Your task to perform on an android device: check battery use Image 0: 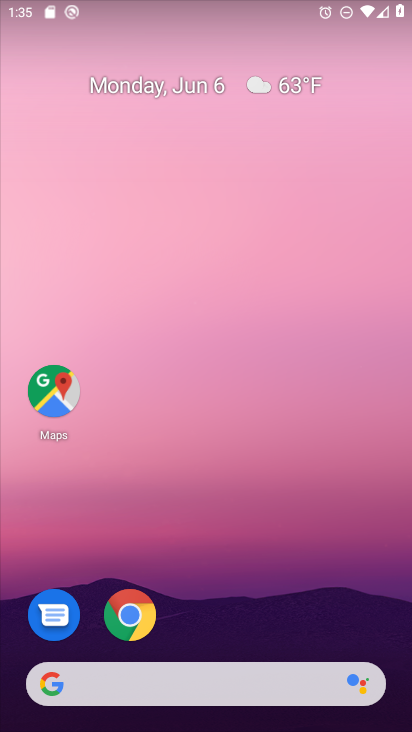
Step 0: drag from (281, 574) to (305, 2)
Your task to perform on an android device: check battery use Image 1: 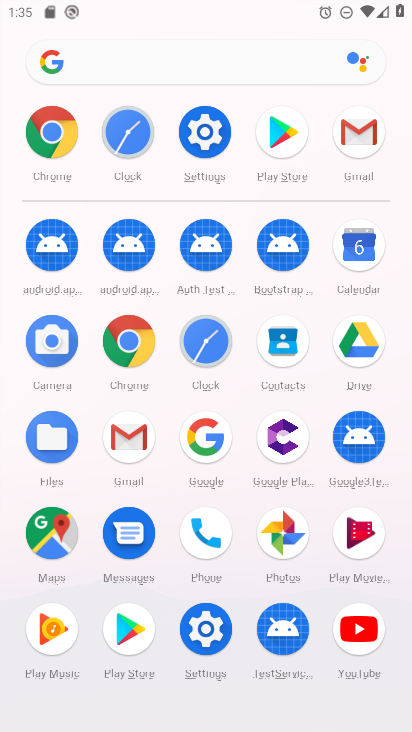
Step 1: click (208, 139)
Your task to perform on an android device: check battery use Image 2: 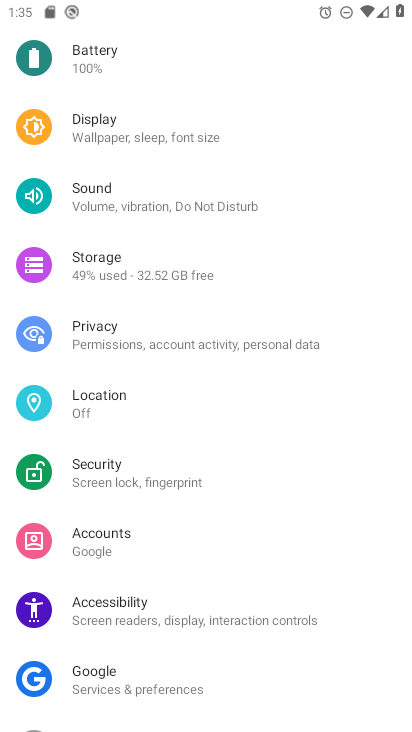
Step 2: click (163, 57)
Your task to perform on an android device: check battery use Image 3: 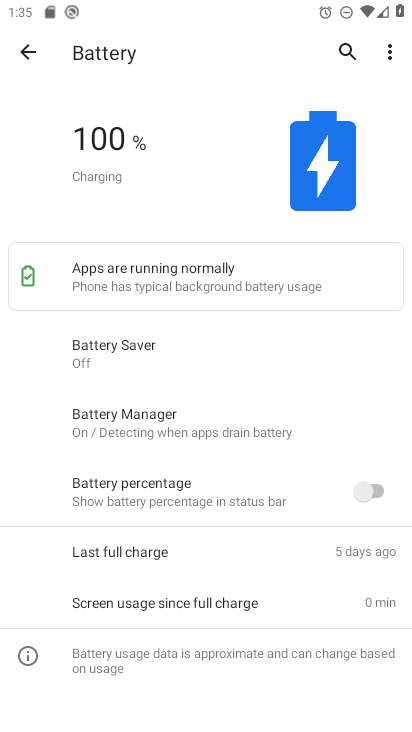
Step 3: click (385, 52)
Your task to perform on an android device: check battery use Image 4: 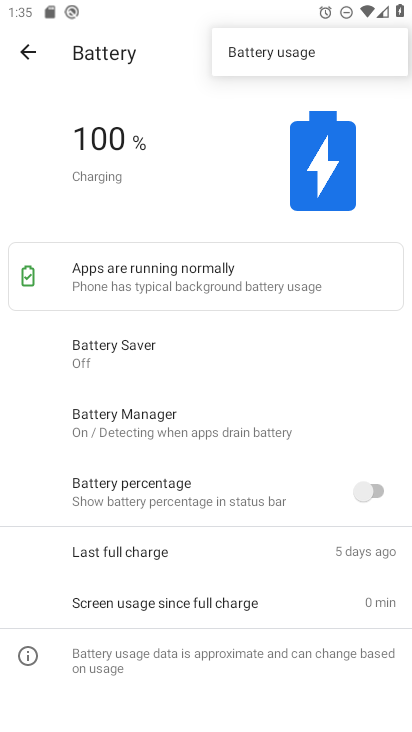
Step 4: click (333, 62)
Your task to perform on an android device: check battery use Image 5: 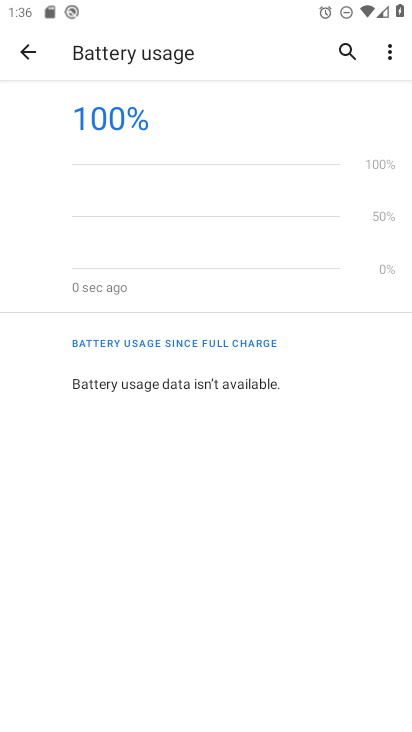
Step 5: task complete